Your task to perform on an android device: set an alarm Image 0: 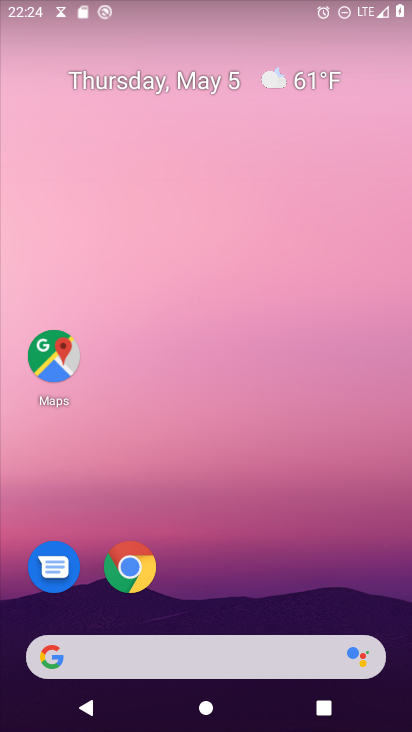
Step 0: drag from (224, 726) to (219, 102)
Your task to perform on an android device: set an alarm Image 1: 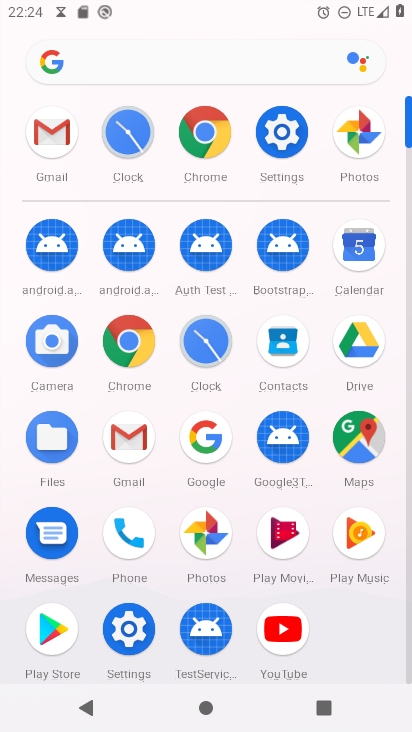
Step 1: click (206, 343)
Your task to perform on an android device: set an alarm Image 2: 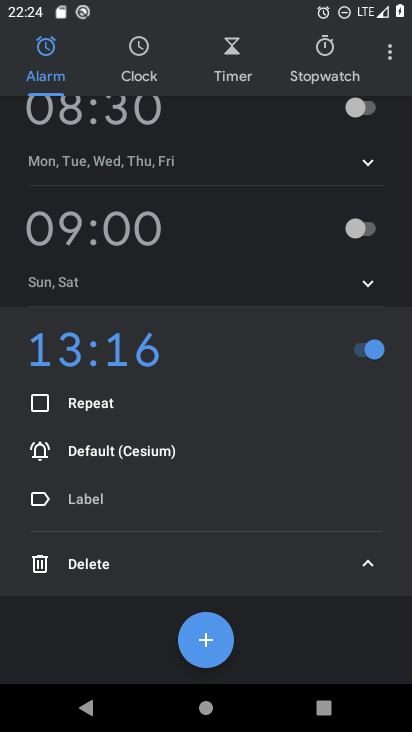
Step 2: click (210, 641)
Your task to perform on an android device: set an alarm Image 3: 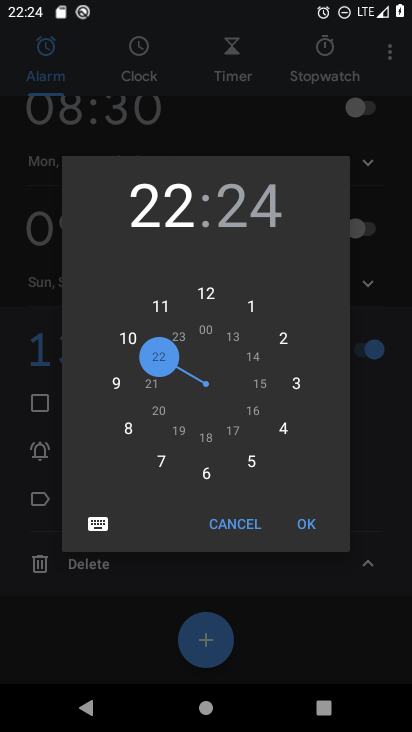
Step 3: drag from (160, 357) to (193, 304)
Your task to perform on an android device: set an alarm Image 4: 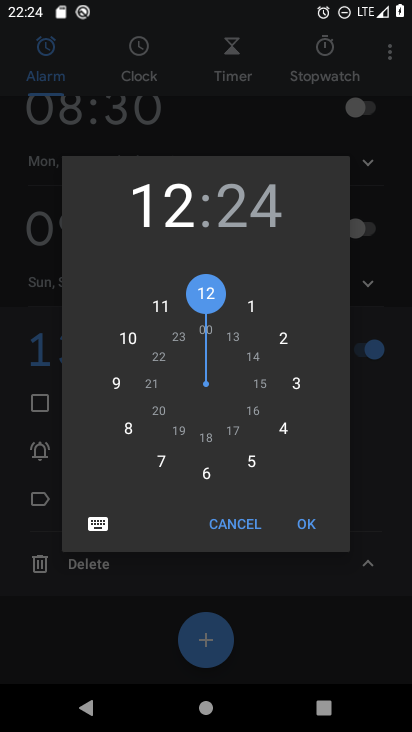
Step 4: click (207, 294)
Your task to perform on an android device: set an alarm Image 5: 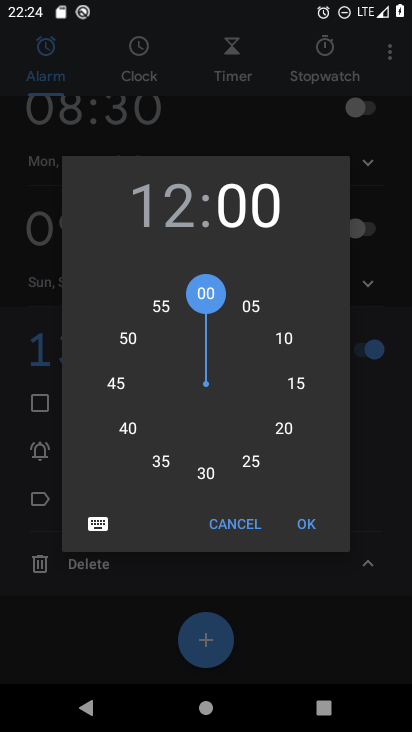
Step 5: click (307, 521)
Your task to perform on an android device: set an alarm Image 6: 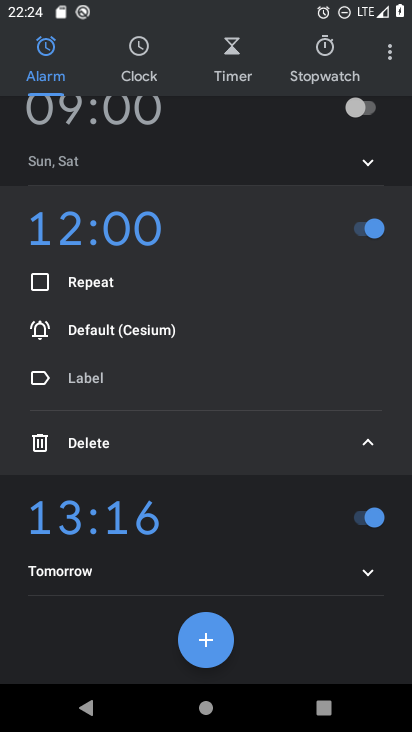
Step 6: task complete